Your task to perform on an android device: read, delete, or share a saved page in the chrome app Image 0: 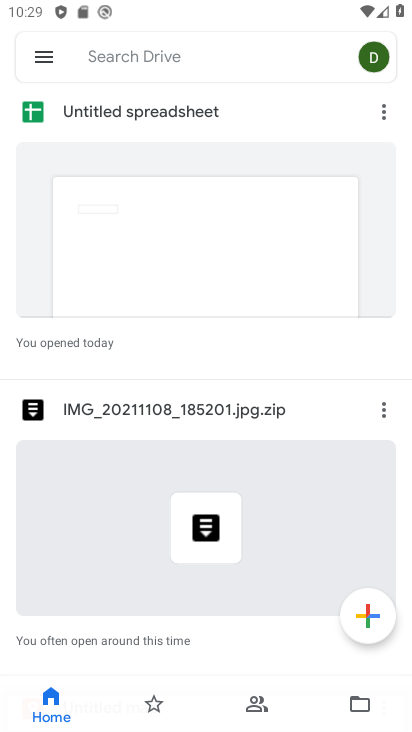
Step 0: press home button
Your task to perform on an android device: read, delete, or share a saved page in the chrome app Image 1: 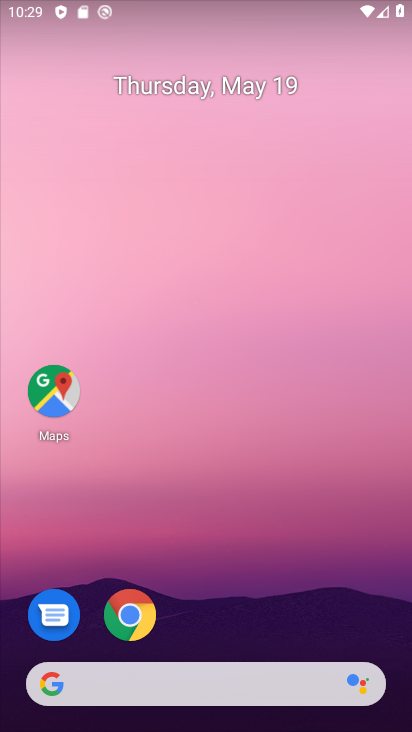
Step 1: click (132, 617)
Your task to perform on an android device: read, delete, or share a saved page in the chrome app Image 2: 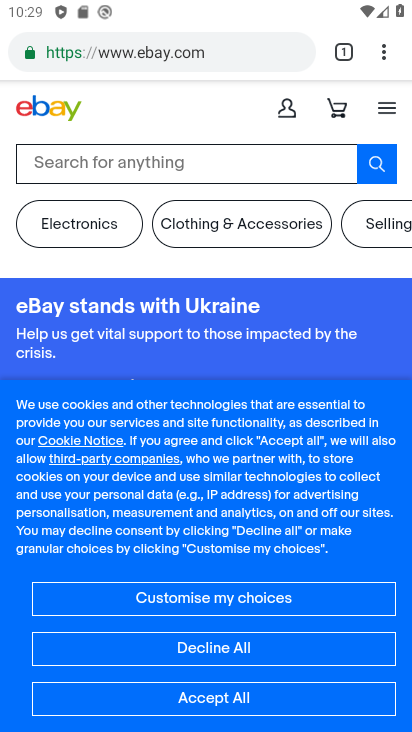
Step 2: click (384, 56)
Your task to perform on an android device: read, delete, or share a saved page in the chrome app Image 3: 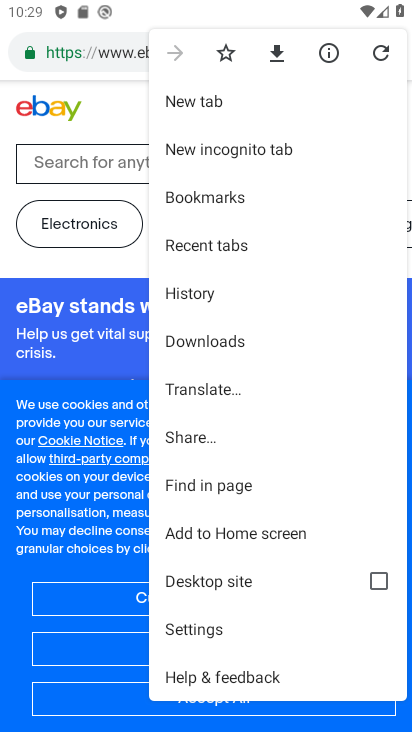
Step 3: click (208, 337)
Your task to perform on an android device: read, delete, or share a saved page in the chrome app Image 4: 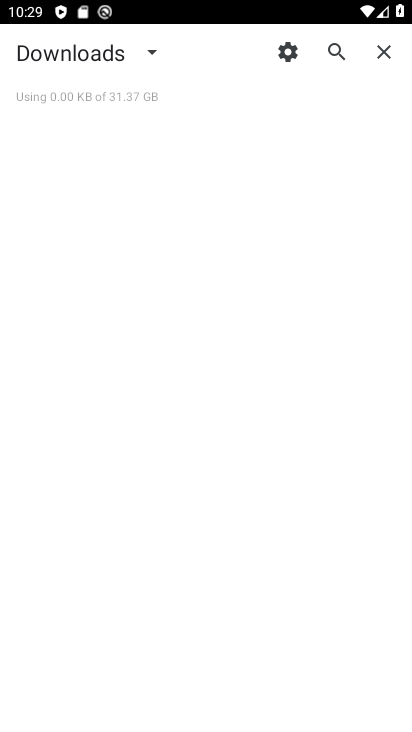
Step 4: click (151, 51)
Your task to perform on an android device: read, delete, or share a saved page in the chrome app Image 5: 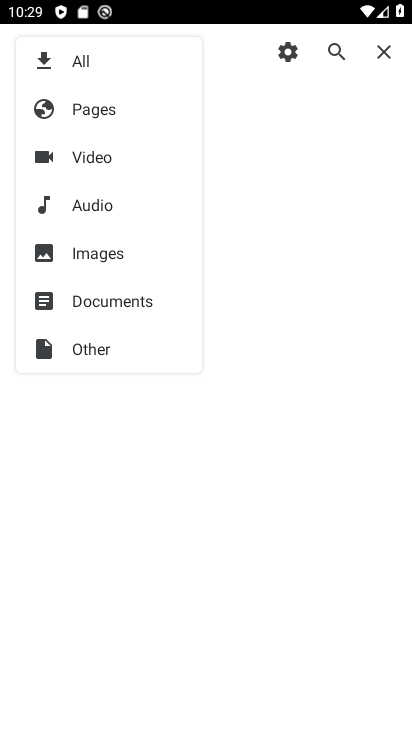
Step 5: click (111, 109)
Your task to perform on an android device: read, delete, or share a saved page in the chrome app Image 6: 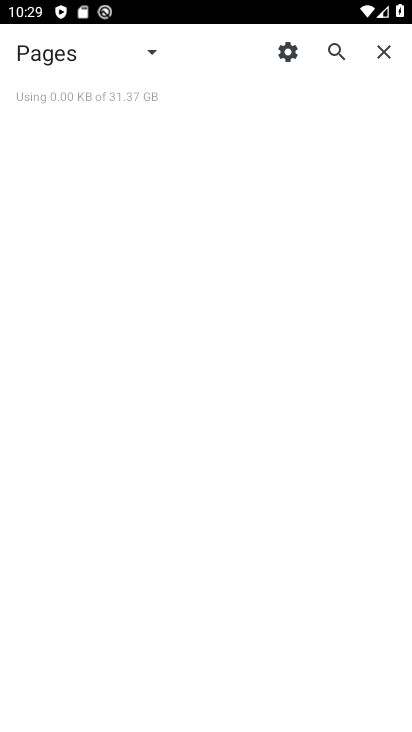
Step 6: task complete